Your task to perform on an android device: Toggle the flashlight Image 0: 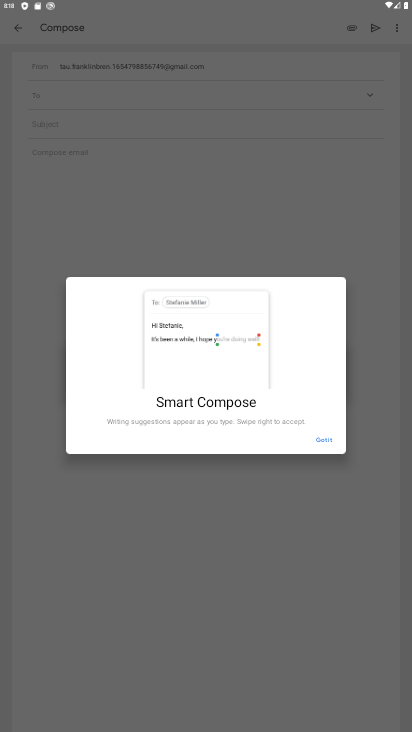
Step 0: press home button
Your task to perform on an android device: Toggle the flashlight Image 1: 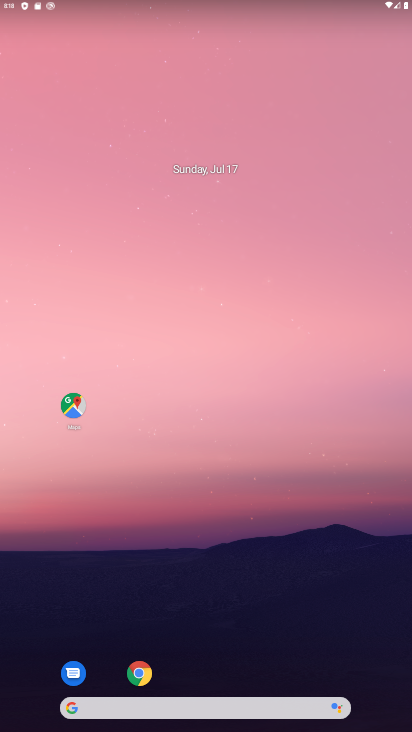
Step 1: drag from (266, 11) to (197, 439)
Your task to perform on an android device: Toggle the flashlight Image 2: 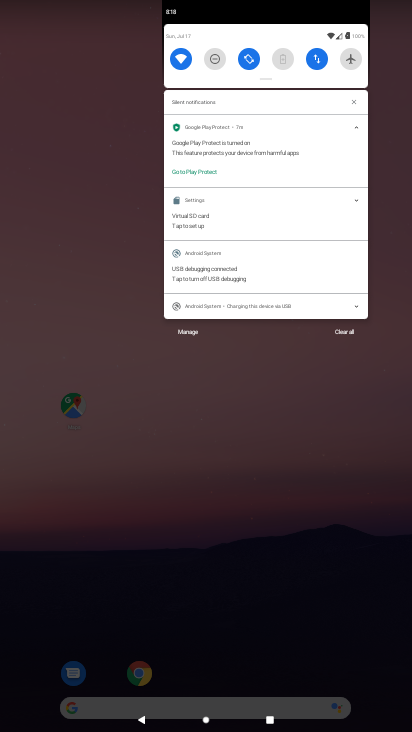
Step 2: drag from (273, 73) to (256, 424)
Your task to perform on an android device: Toggle the flashlight Image 3: 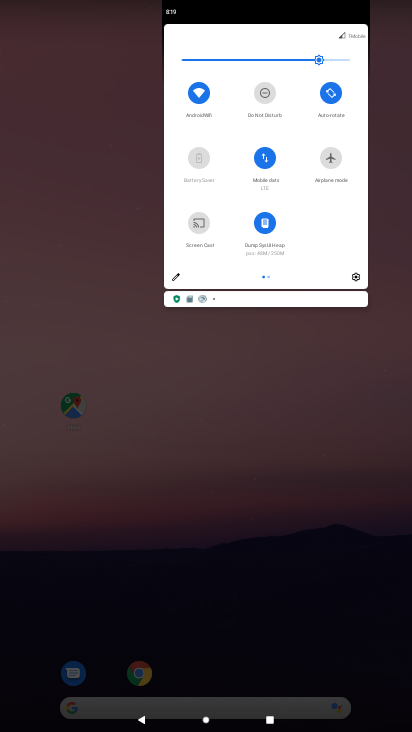
Step 3: click (179, 282)
Your task to perform on an android device: Toggle the flashlight Image 4: 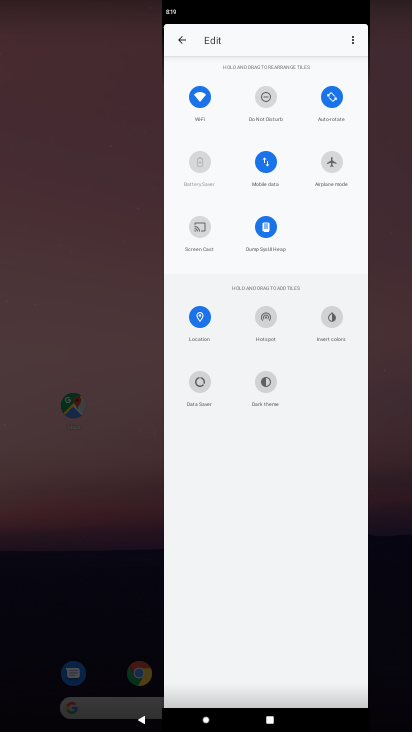
Step 4: task complete